Your task to perform on an android device: move a message to another label in the gmail app Image 0: 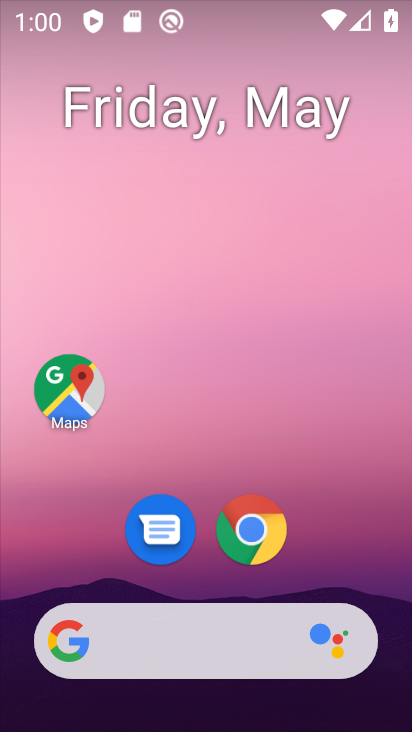
Step 0: drag from (211, 576) to (280, 68)
Your task to perform on an android device: move a message to another label in the gmail app Image 1: 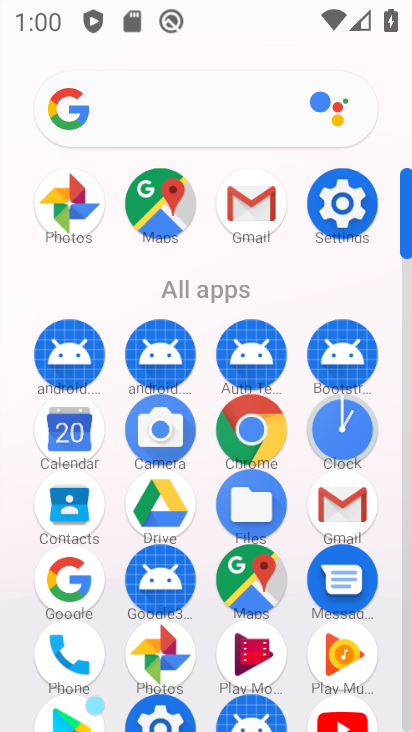
Step 1: click (335, 513)
Your task to perform on an android device: move a message to another label in the gmail app Image 2: 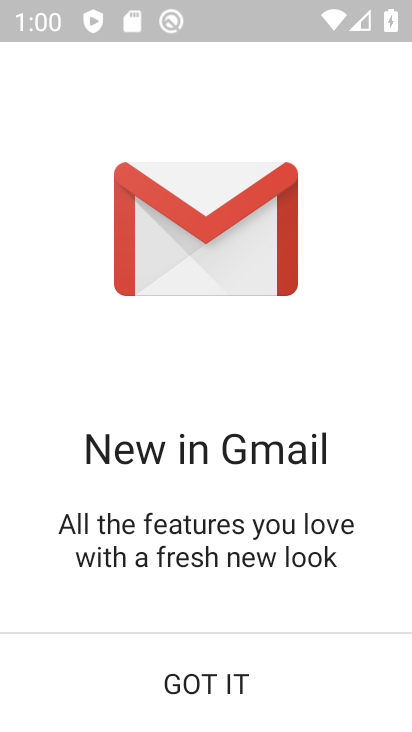
Step 2: click (211, 679)
Your task to perform on an android device: move a message to another label in the gmail app Image 3: 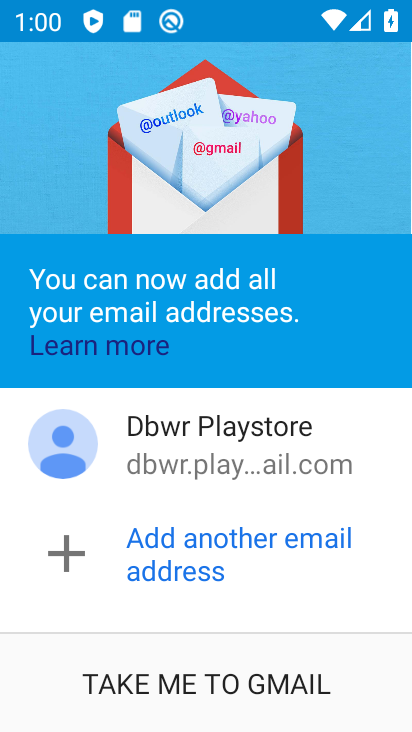
Step 3: click (154, 678)
Your task to perform on an android device: move a message to another label in the gmail app Image 4: 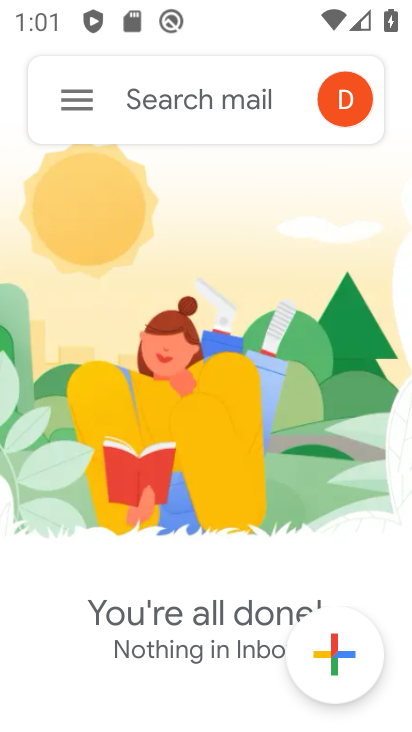
Step 4: task complete